Your task to perform on an android device: Open settings on Google Maps Image 0: 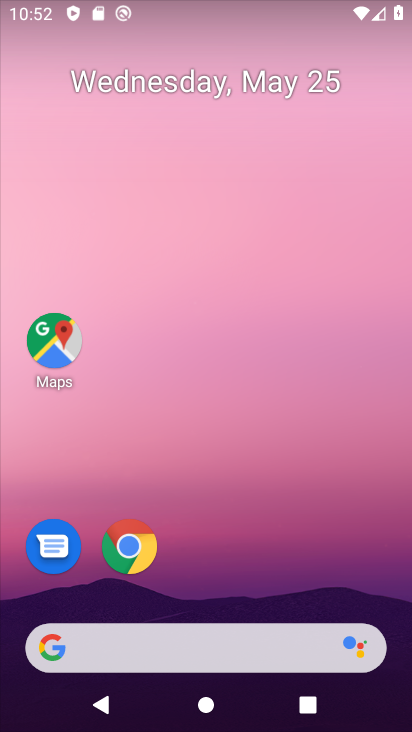
Step 0: drag from (369, 568) to (320, 151)
Your task to perform on an android device: Open settings on Google Maps Image 1: 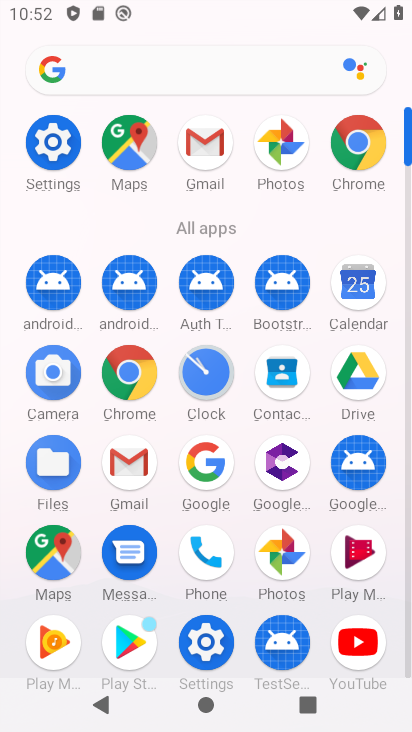
Step 1: click (63, 571)
Your task to perform on an android device: Open settings on Google Maps Image 2: 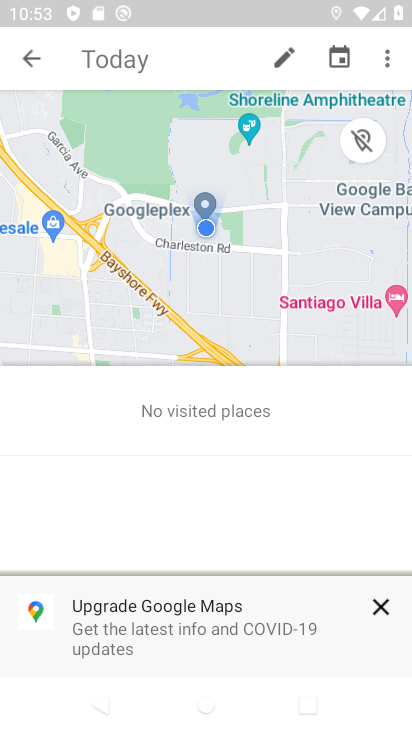
Step 2: click (392, 61)
Your task to perform on an android device: Open settings on Google Maps Image 3: 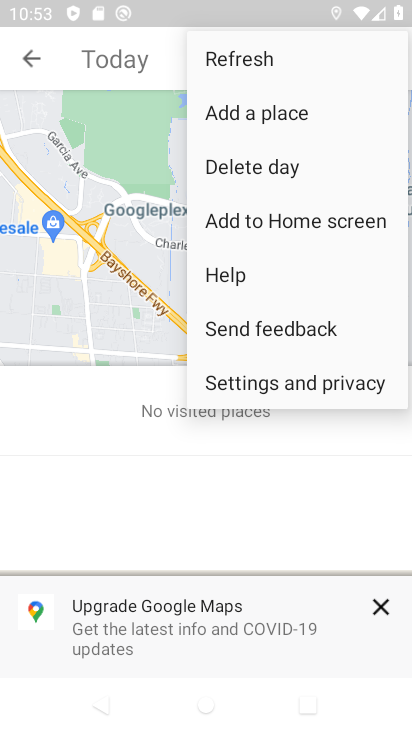
Step 3: click (237, 388)
Your task to perform on an android device: Open settings on Google Maps Image 4: 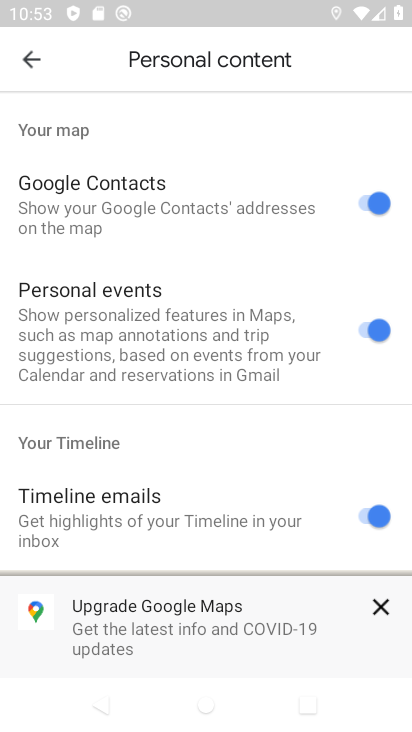
Step 4: task complete